Your task to perform on an android device: change alarm snooze length Image 0: 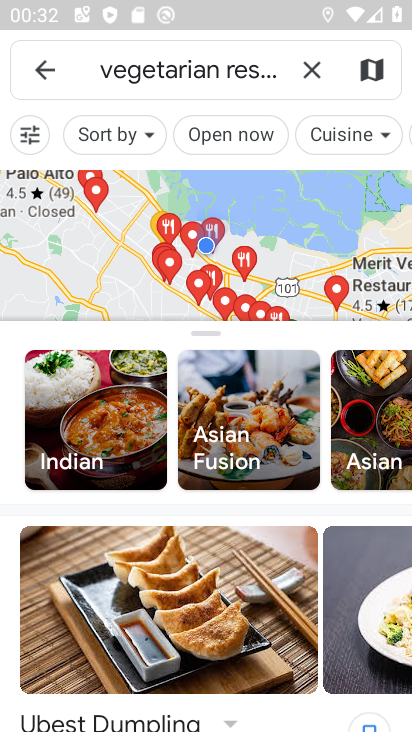
Step 0: press home button
Your task to perform on an android device: change alarm snooze length Image 1: 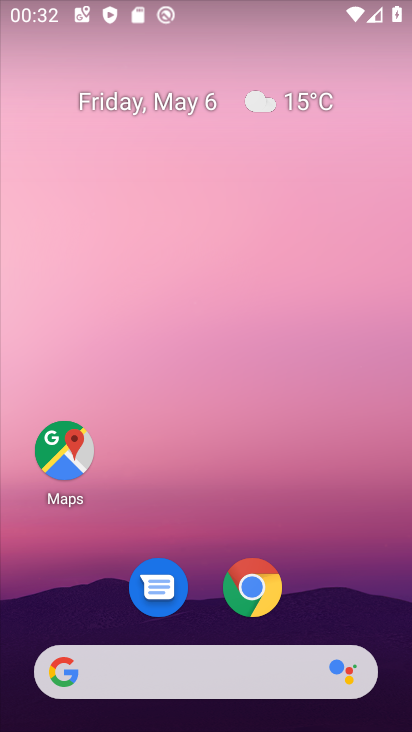
Step 1: drag from (365, 616) to (329, 414)
Your task to perform on an android device: change alarm snooze length Image 2: 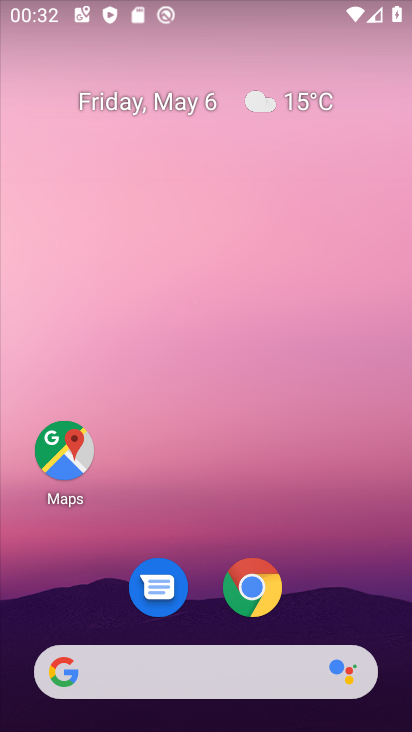
Step 2: click (347, 156)
Your task to perform on an android device: change alarm snooze length Image 3: 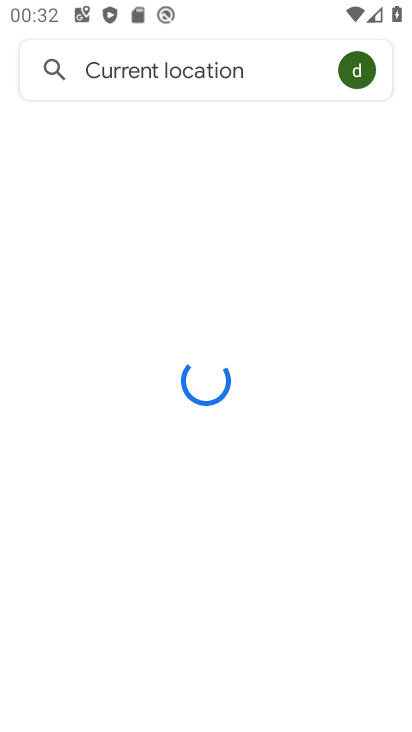
Step 3: press home button
Your task to perform on an android device: change alarm snooze length Image 4: 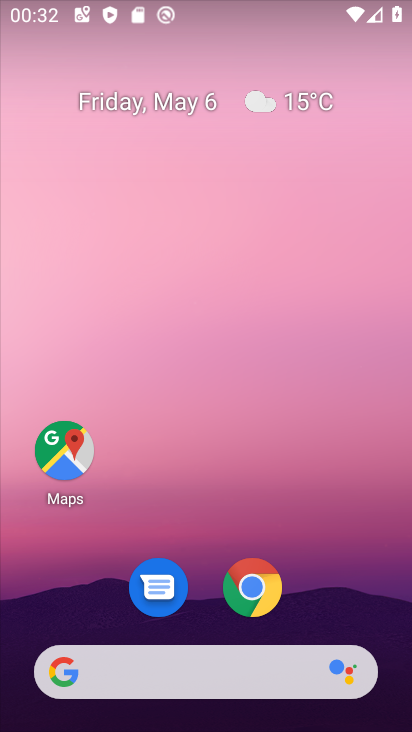
Step 4: drag from (375, 585) to (350, 204)
Your task to perform on an android device: change alarm snooze length Image 5: 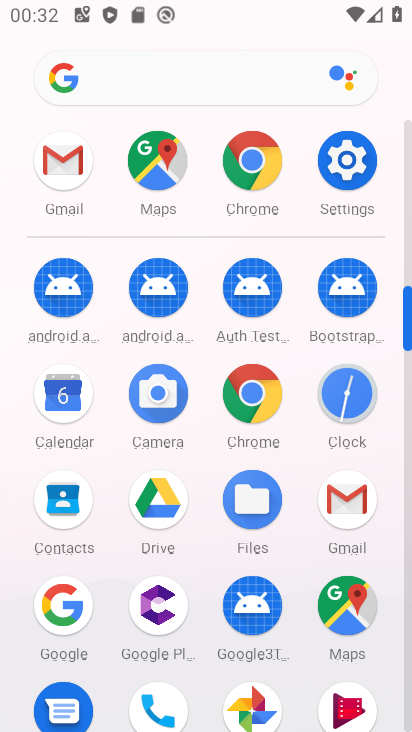
Step 5: click (352, 383)
Your task to perform on an android device: change alarm snooze length Image 6: 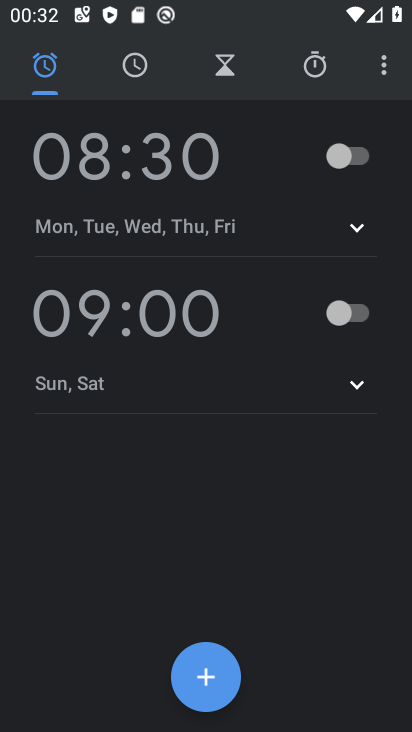
Step 6: click (380, 65)
Your task to perform on an android device: change alarm snooze length Image 7: 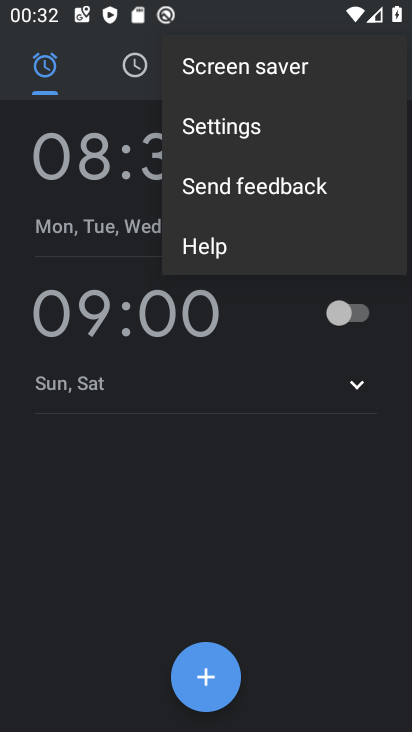
Step 7: click (242, 133)
Your task to perform on an android device: change alarm snooze length Image 8: 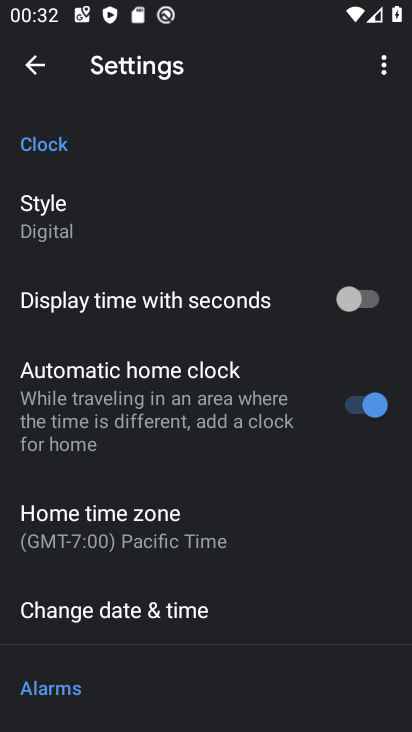
Step 8: drag from (205, 584) to (201, 273)
Your task to perform on an android device: change alarm snooze length Image 9: 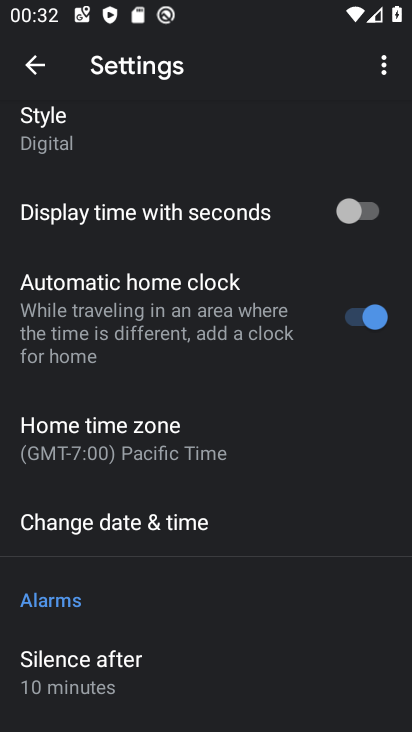
Step 9: drag from (178, 689) to (199, 385)
Your task to perform on an android device: change alarm snooze length Image 10: 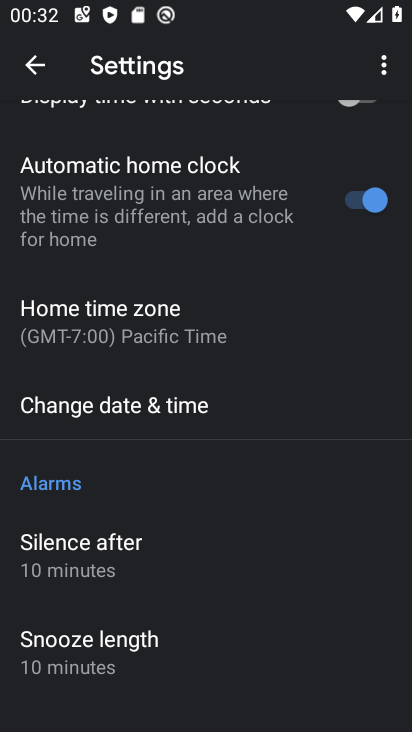
Step 10: click (102, 640)
Your task to perform on an android device: change alarm snooze length Image 11: 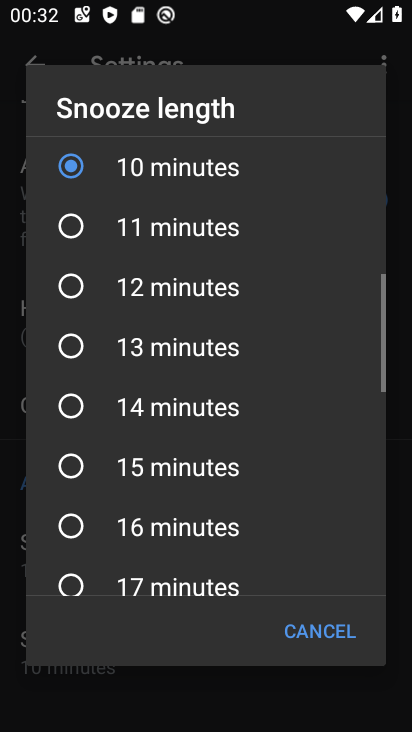
Step 11: click (71, 456)
Your task to perform on an android device: change alarm snooze length Image 12: 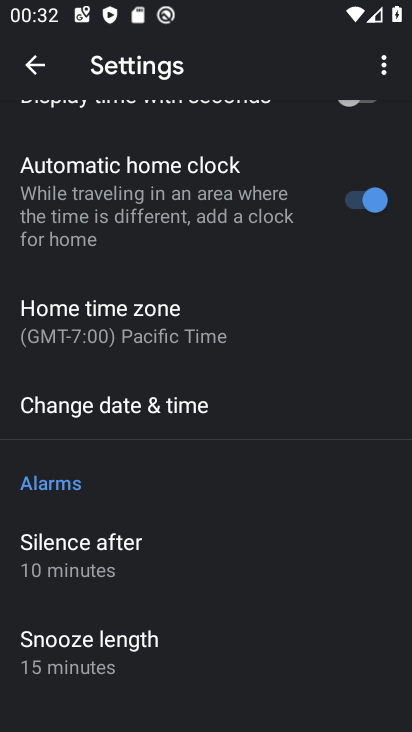
Step 12: task complete